Your task to perform on an android device: Go to ESPN.com Image 0: 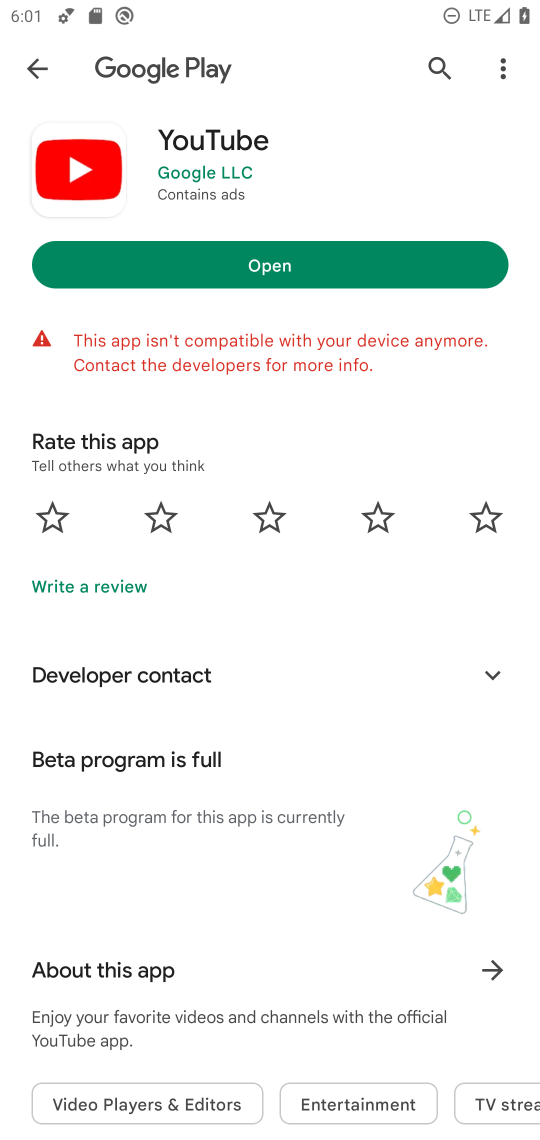
Step 0: press home button
Your task to perform on an android device: Go to ESPN.com Image 1: 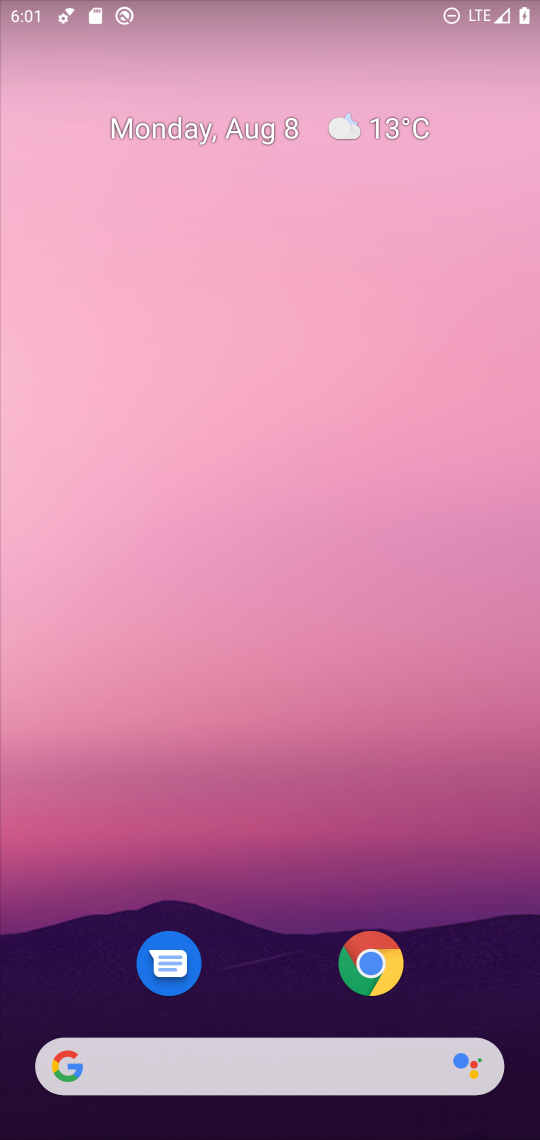
Step 1: click (363, 964)
Your task to perform on an android device: Go to ESPN.com Image 2: 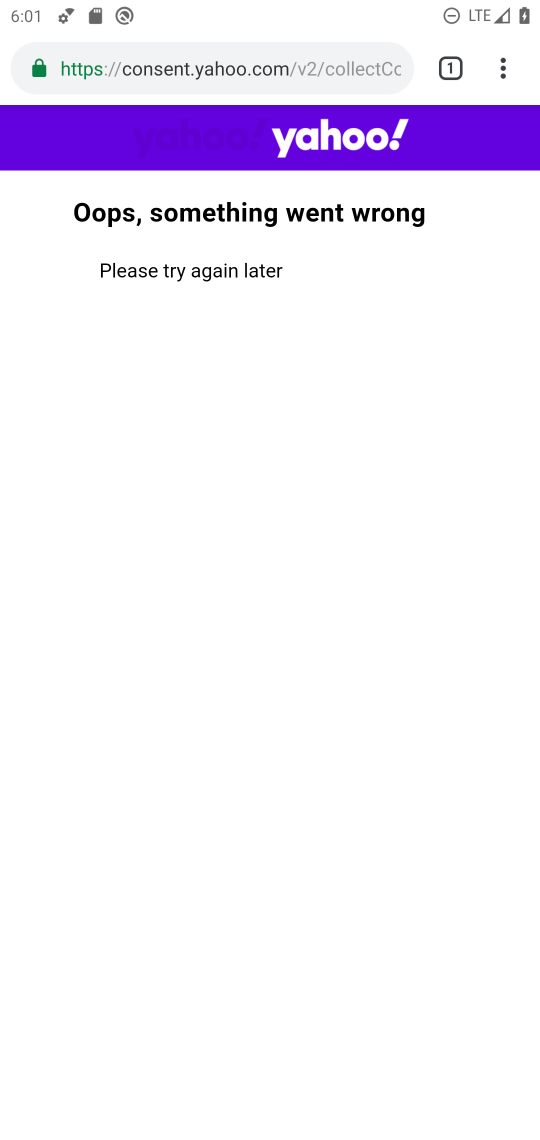
Step 2: click (261, 60)
Your task to perform on an android device: Go to ESPN.com Image 3: 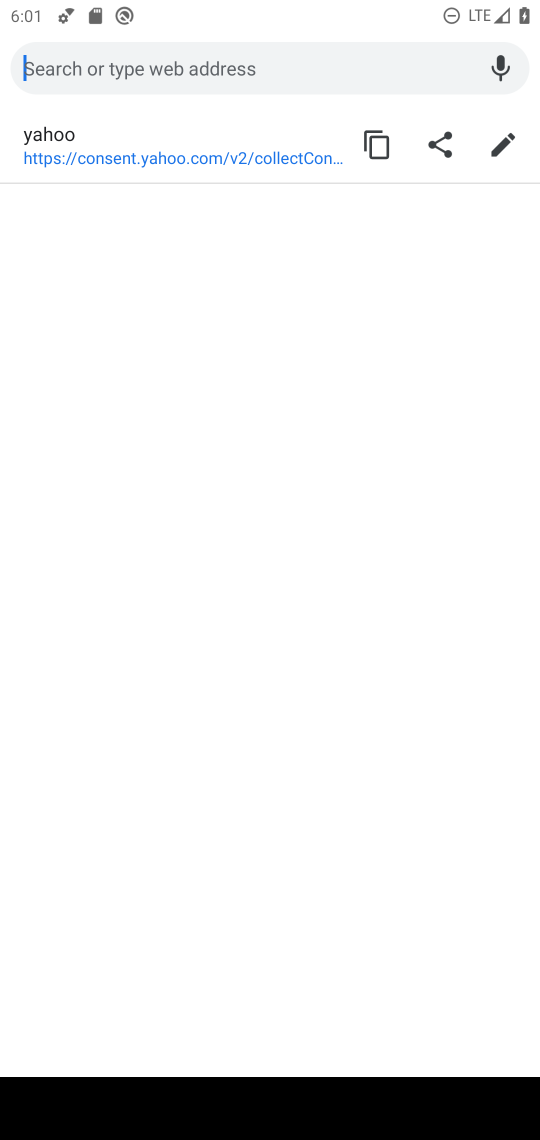
Step 3: type "espn.com"
Your task to perform on an android device: Go to ESPN.com Image 4: 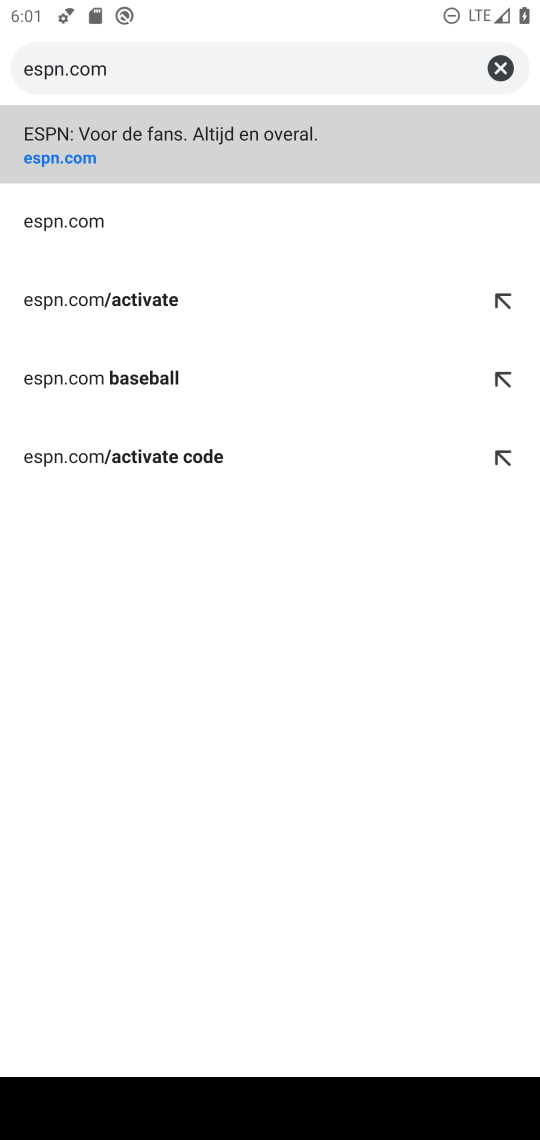
Step 4: click (122, 129)
Your task to perform on an android device: Go to ESPN.com Image 5: 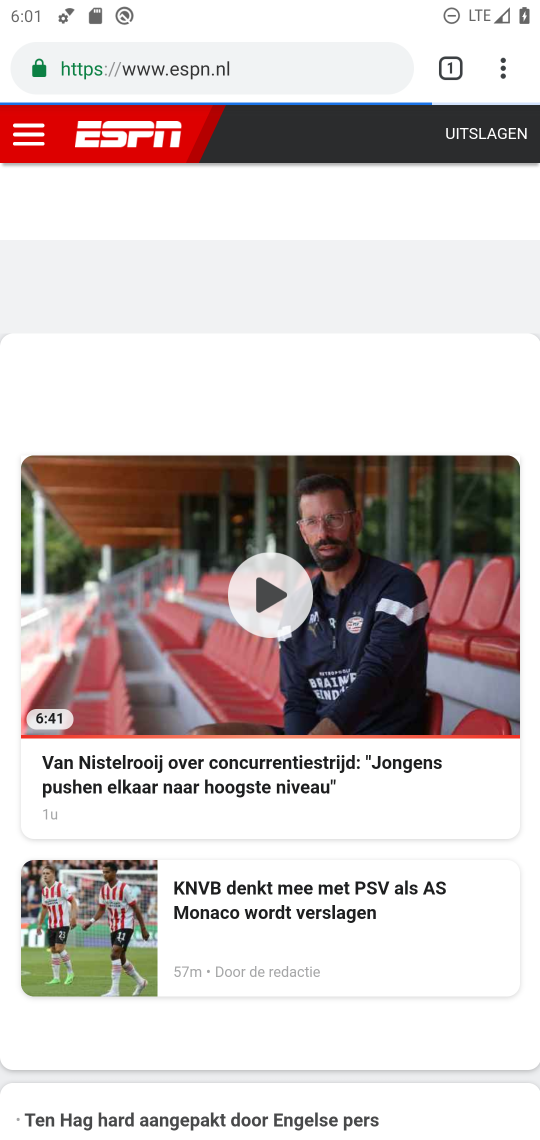
Step 5: task complete